Your task to perform on an android device: When is my next appointment? Image 0: 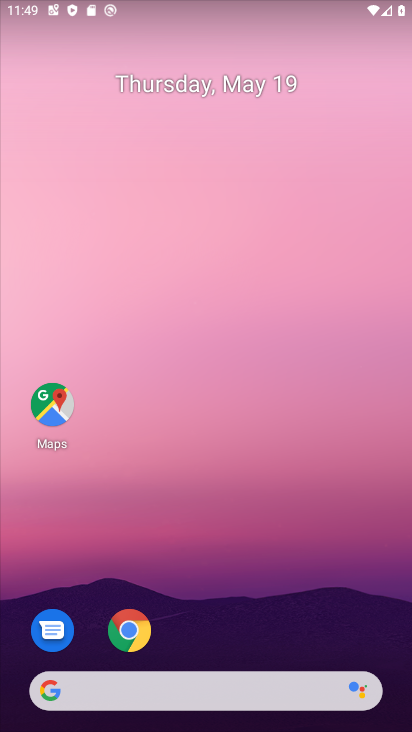
Step 0: drag from (230, 606) to (184, 93)
Your task to perform on an android device: When is my next appointment? Image 1: 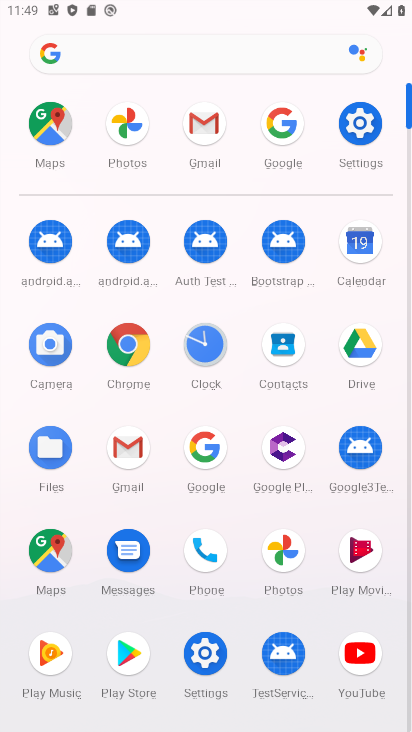
Step 1: click (359, 242)
Your task to perform on an android device: When is my next appointment? Image 2: 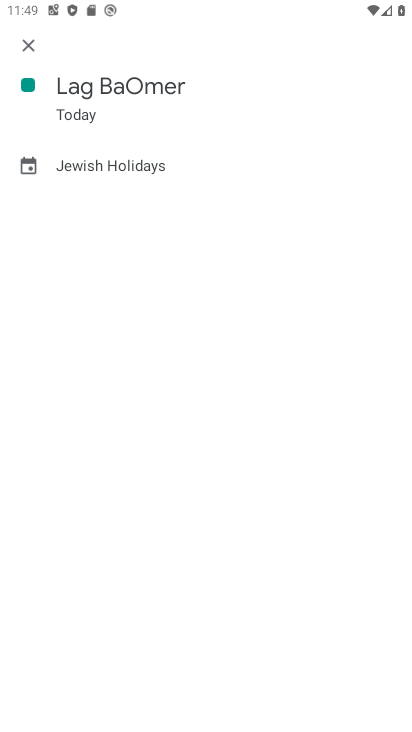
Step 2: click (25, 42)
Your task to perform on an android device: When is my next appointment? Image 3: 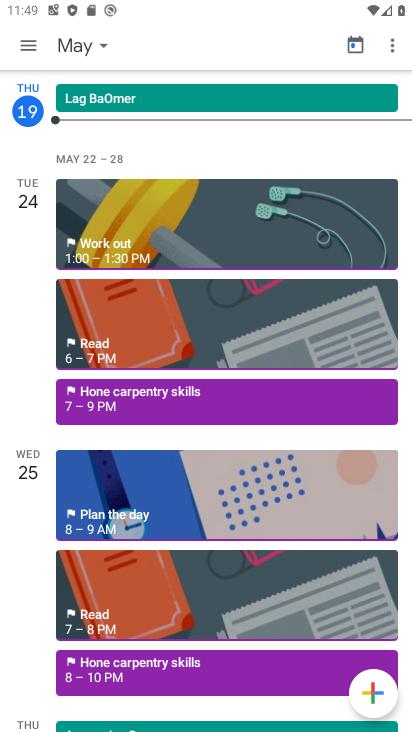
Step 3: click (361, 43)
Your task to perform on an android device: When is my next appointment? Image 4: 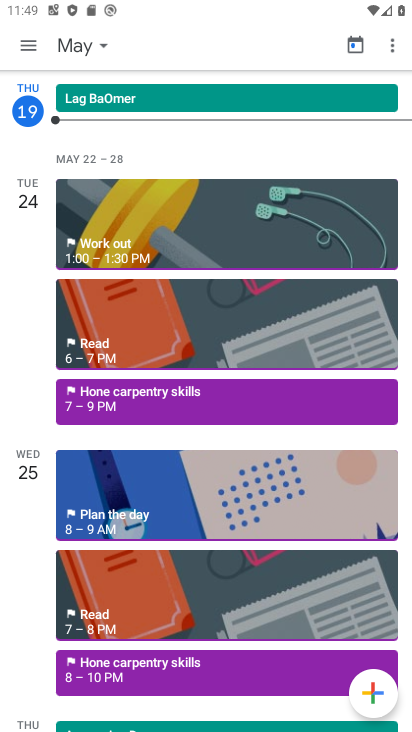
Step 4: click (101, 50)
Your task to perform on an android device: When is my next appointment? Image 5: 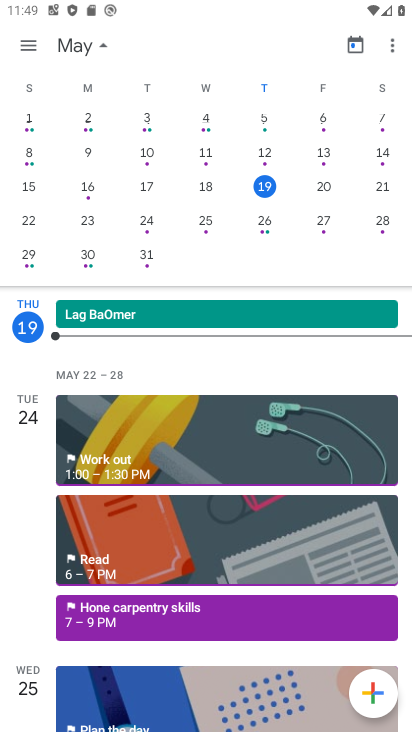
Step 5: click (154, 228)
Your task to perform on an android device: When is my next appointment? Image 6: 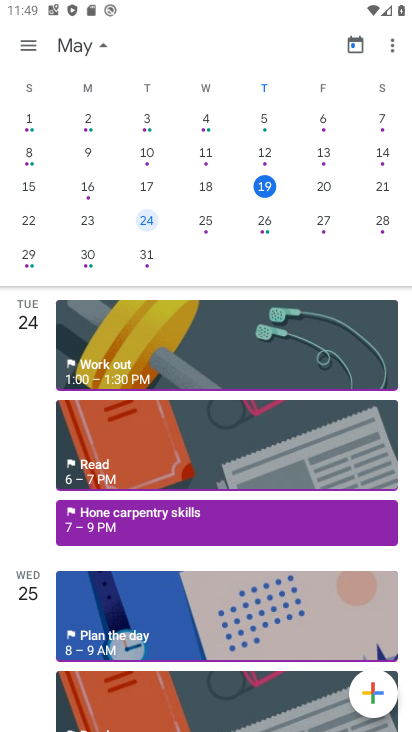
Step 6: click (29, 46)
Your task to perform on an android device: When is my next appointment? Image 7: 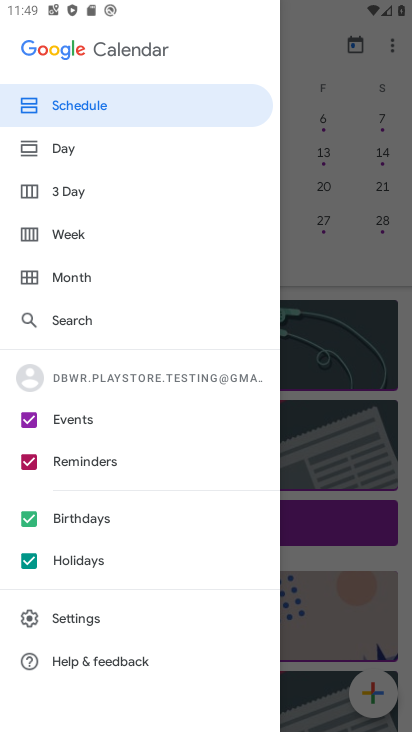
Step 7: click (61, 224)
Your task to perform on an android device: When is my next appointment? Image 8: 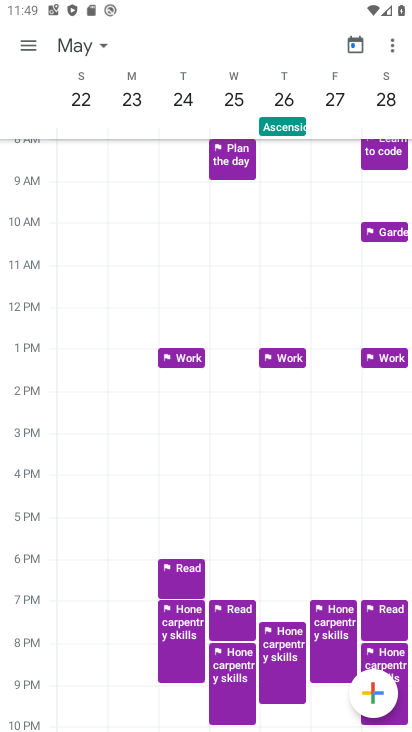
Step 8: task complete